Your task to perform on an android device: turn on priority inbox in the gmail app Image 0: 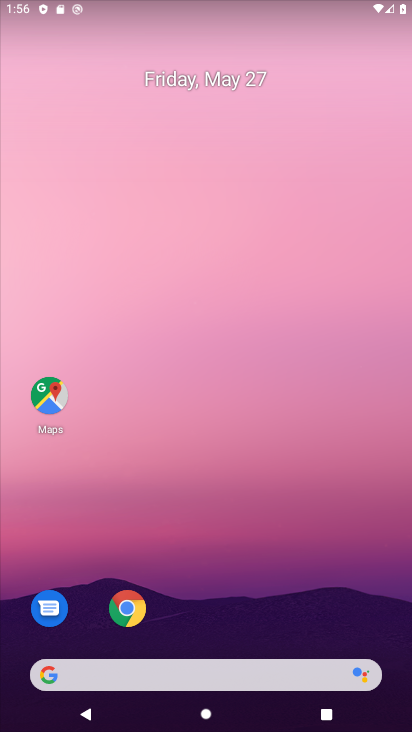
Step 0: drag from (239, 619) to (175, 97)
Your task to perform on an android device: turn on priority inbox in the gmail app Image 1: 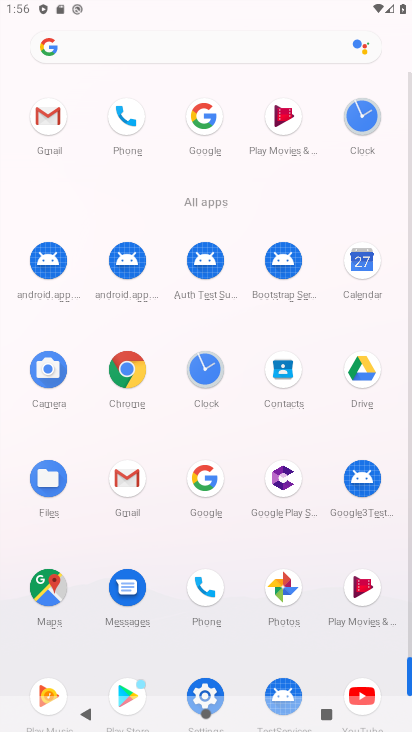
Step 1: click (53, 122)
Your task to perform on an android device: turn on priority inbox in the gmail app Image 2: 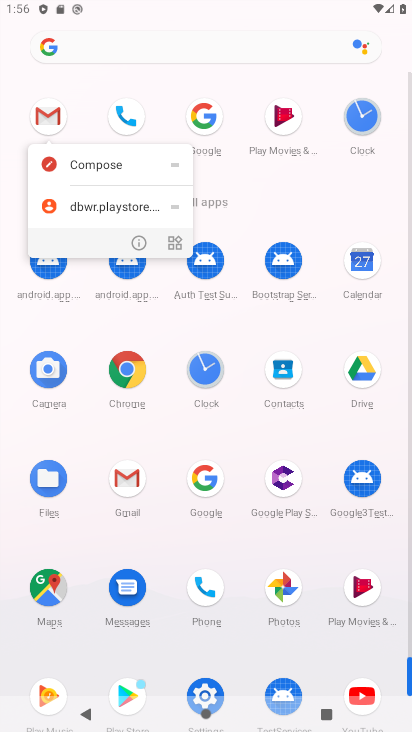
Step 2: click (57, 115)
Your task to perform on an android device: turn on priority inbox in the gmail app Image 3: 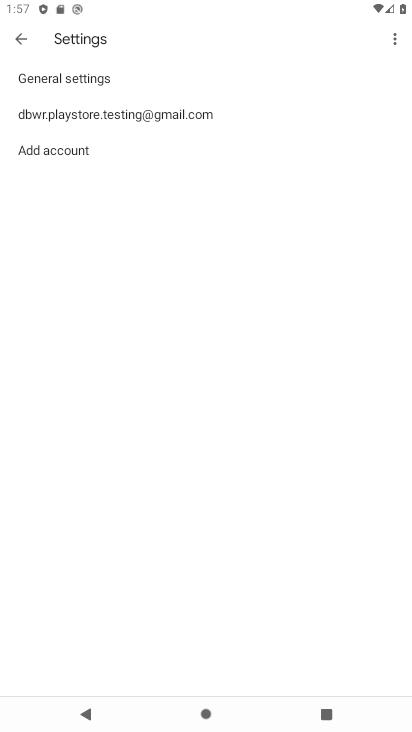
Step 3: click (58, 110)
Your task to perform on an android device: turn on priority inbox in the gmail app Image 4: 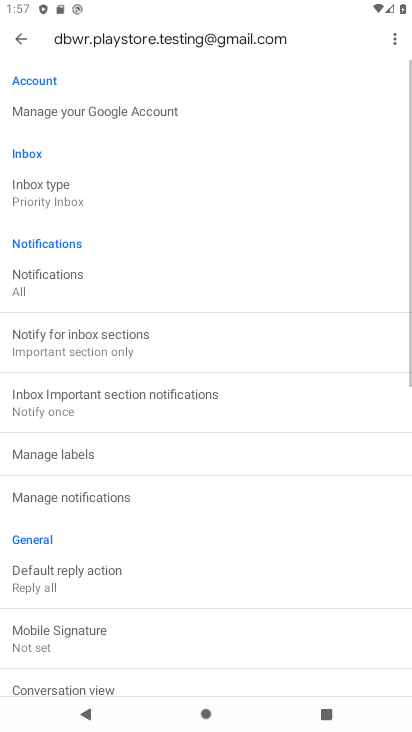
Step 4: click (35, 192)
Your task to perform on an android device: turn on priority inbox in the gmail app Image 5: 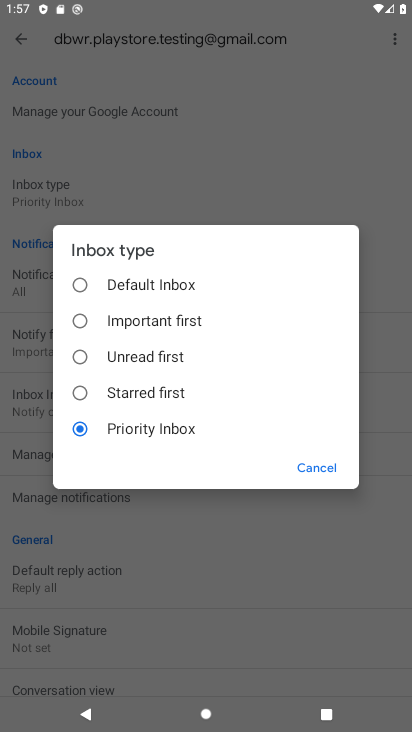
Step 5: task complete